Your task to perform on an android device: Open settings Image 0: 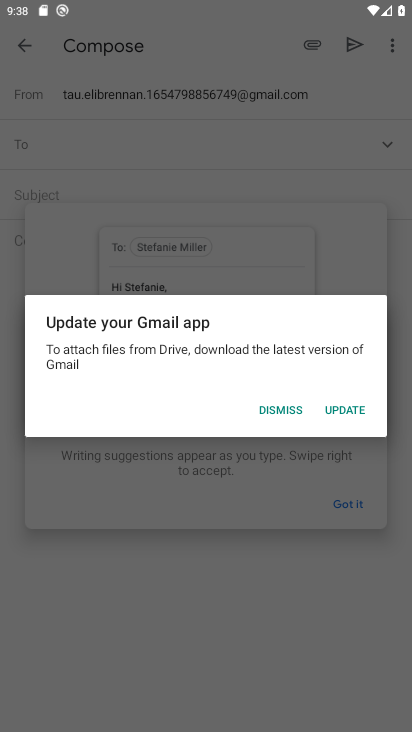
Step 0: press home button
Your task to perform on an android device: Open settings Image 1: 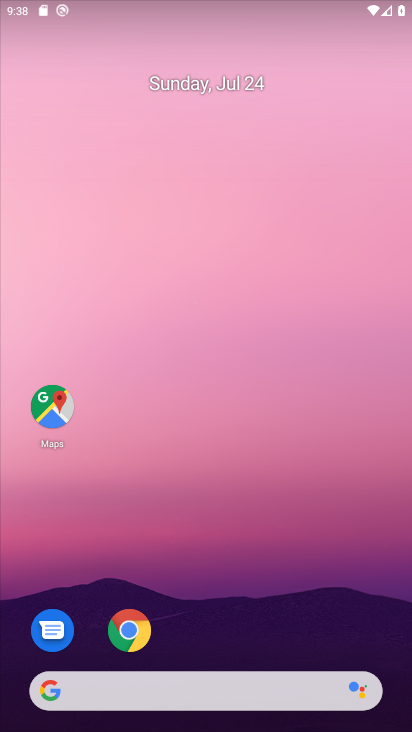
Step 1: drag from (166, 662) to (210, 118)
Your task to perform on an android device: Open settings Image 2: 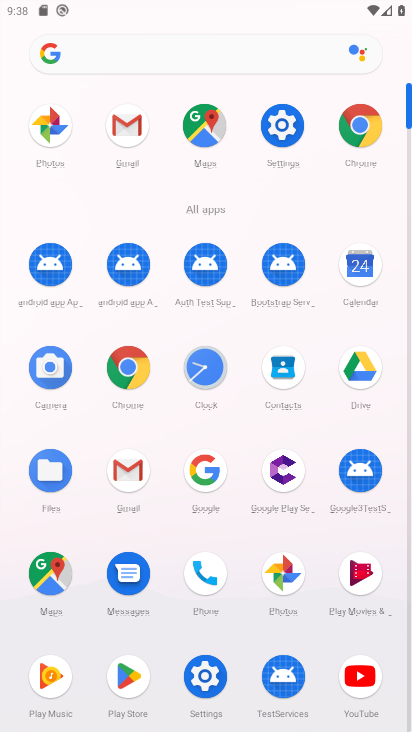
Step 2: click (277, 131)
Your task to perform on an android device: Open settings Image 3: 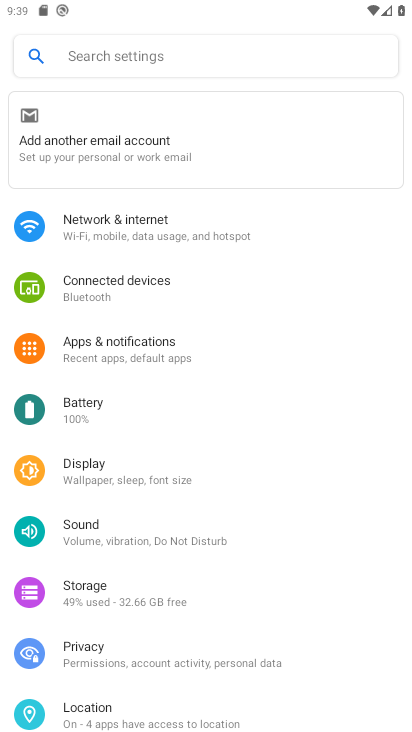
Step 3: task complete